Your task to perform on an android device: Go to location settings Image 0: 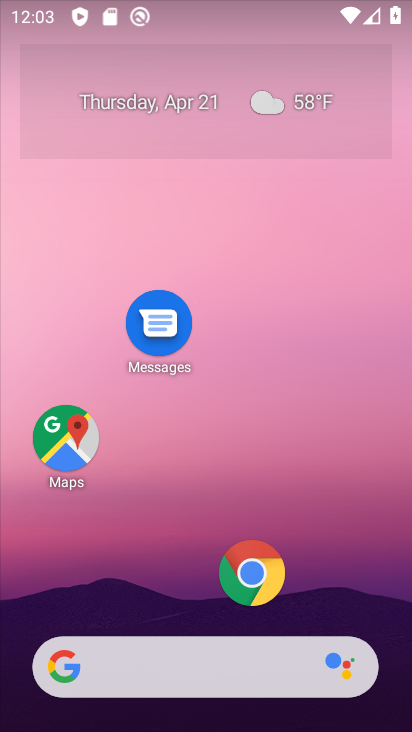
Step 0: drag from (152, 510) to (129, 101)
Your task to perform on an android device: Go to location settings Image 1: 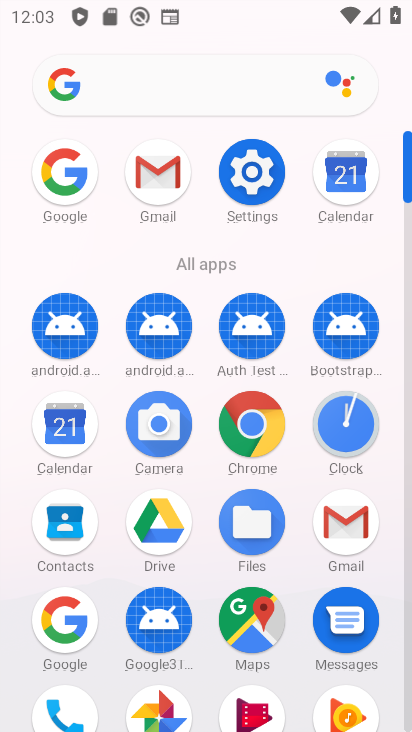
Step 1: click (250, 172)
Your task to perform on an android device: Go to location settings Image 2: 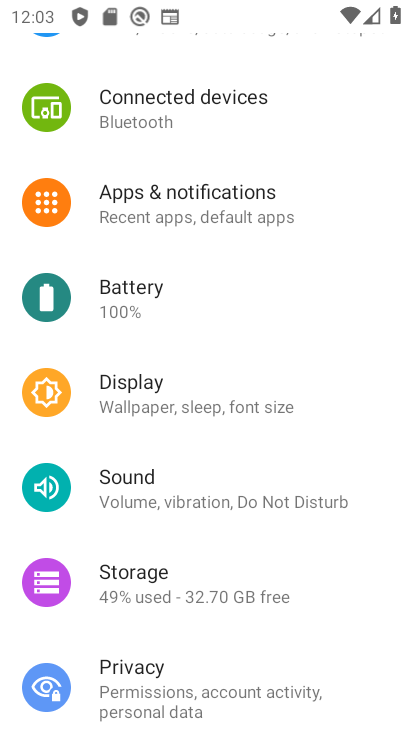
Step 2: drag from (197, 549) to (179, 75)
Your task to perform on an android device: Go to location settings Image 3: 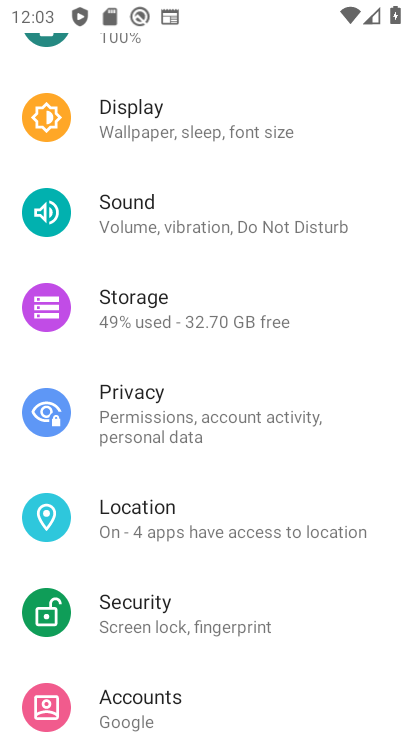
Step 3: click (163, 520)
Your task to perform on an android device: Go to location settings Image 4: 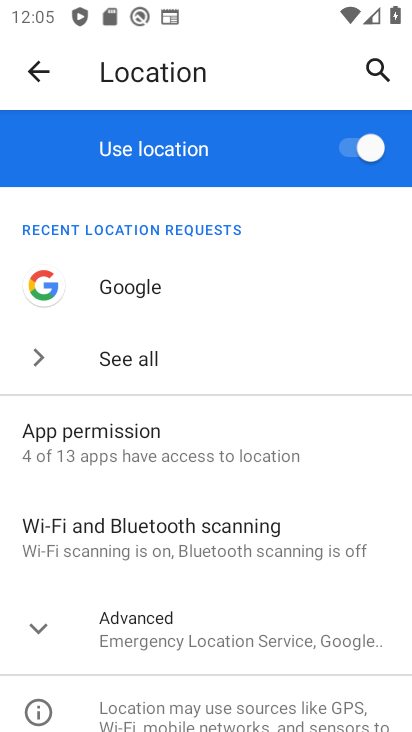
Step 4: task complete